Your task to perform on an android device: set an alarm Image 0: 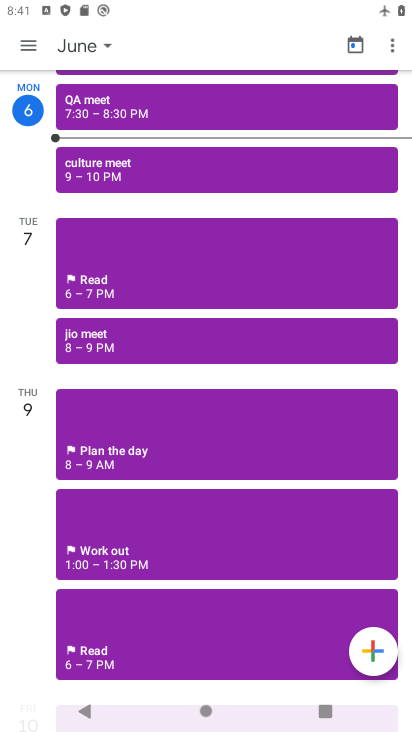
Step 0: press home button
Your task to perform on an android device: set an alarm Image 1: 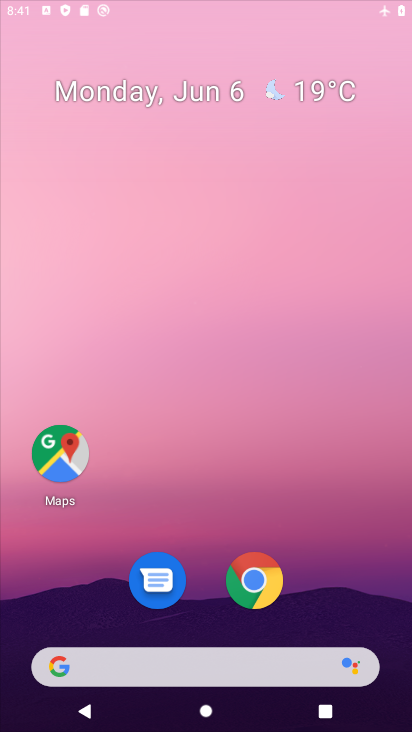
Step 1: drag from (257, 607) to (267, 9)
Your task to perform on an android device: set an alarm Image 2: 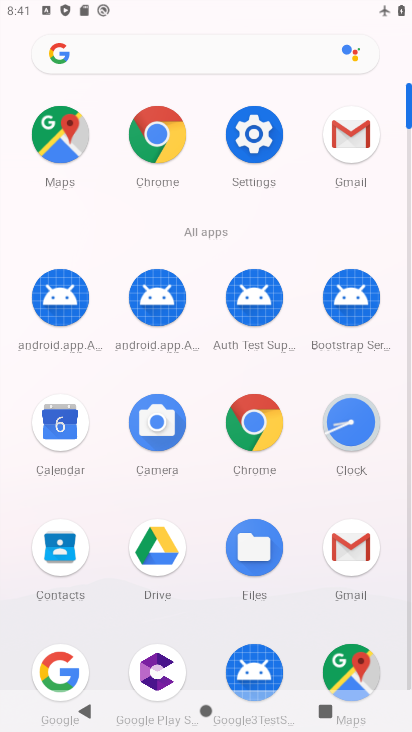
Step 2: click (346, 438)
Your task to perform on an android device: set an alarm Image 3: 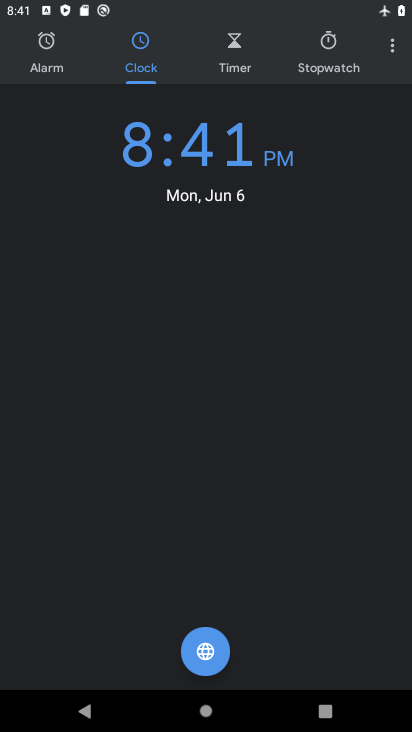
Step 3: task complete